Your task to perform on an android device: Open battery settings Image 0: 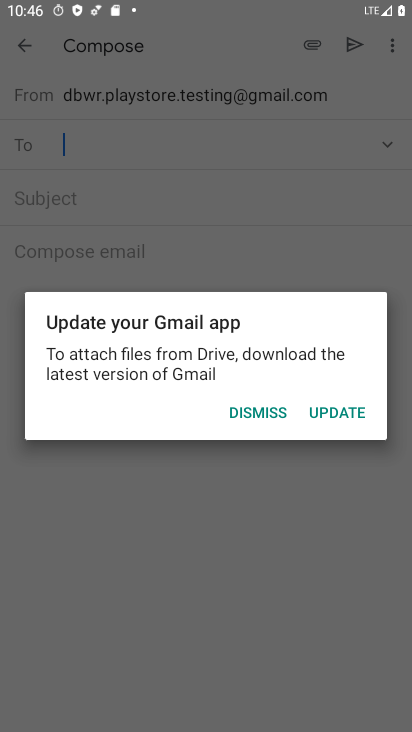
Step 0: press back button
Your task to perform on an android device: Open battery settings Image 1: 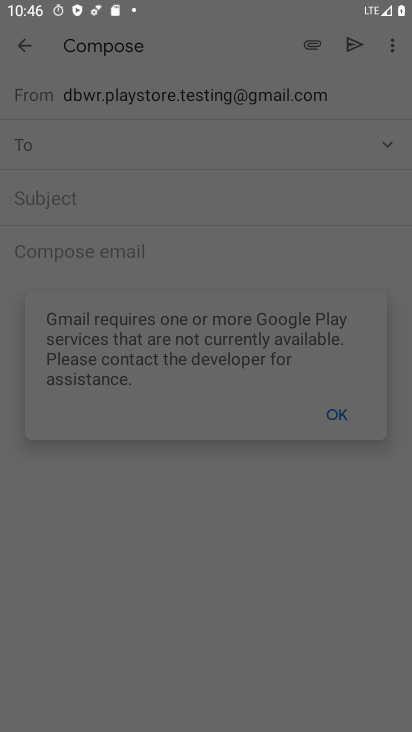
Step 1: press home button
Your task to perform on an android device: Open battery settings Image 2: 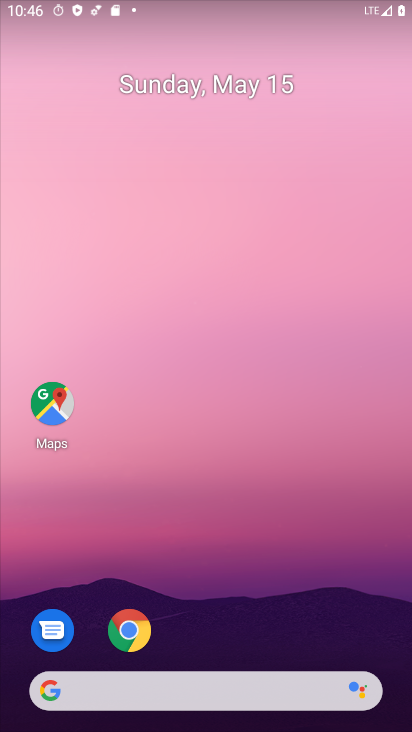
Step 2: drag from (222, 636) to (317, 112)
Your task to perform on an android device: Open battery settings Image 3: 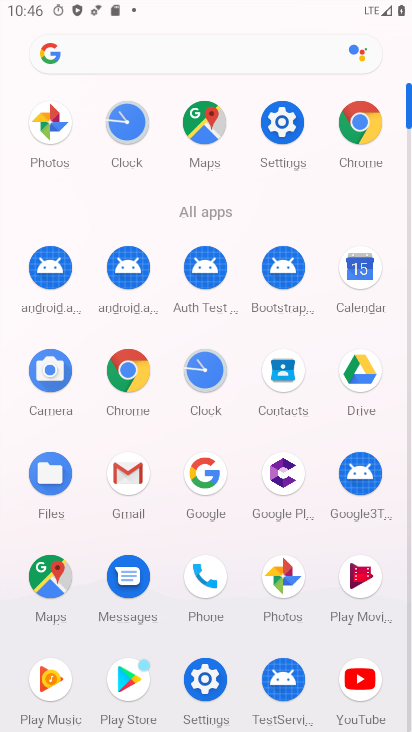
Step 3: click (288, 118)
Your task to perform on an android device: Open battery settings Image 4: 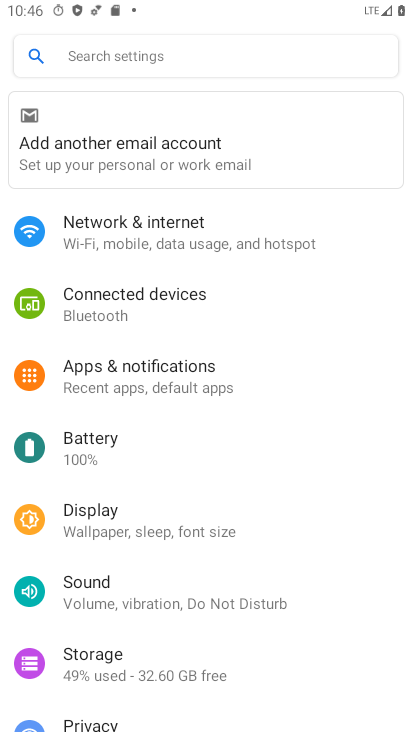
Step 4: click (114, 445)
Your task to perform on an android device: Open battery settings Image 5: 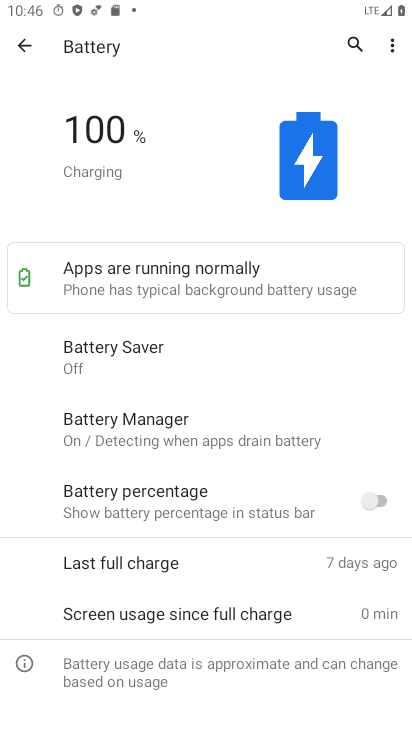
Step 5: task complete